Your task to perform on an android device: show emergency info Image 0: 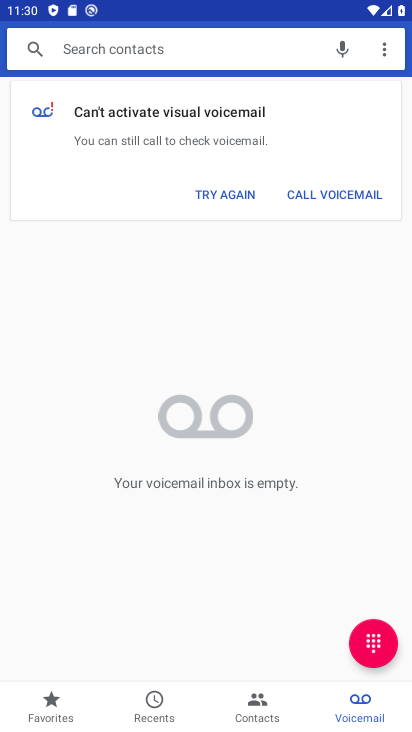
Step 0: press home button
Your task to perform on an android device: show emergency info Image 1: 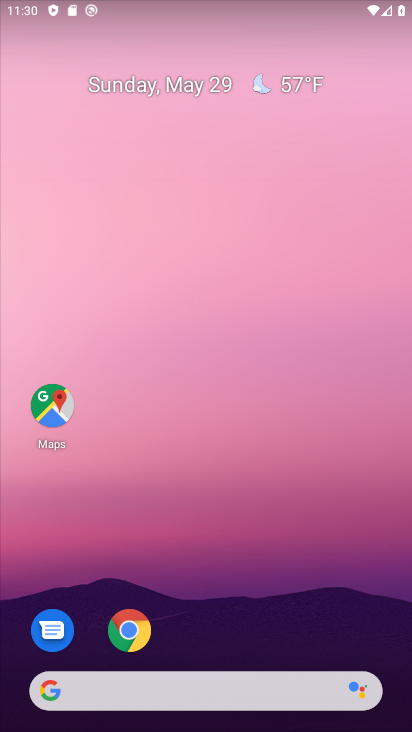
Step 1: drag from (219, 703) to (228, 136)
Your task to perform on an android device: show emergency info Image 2: 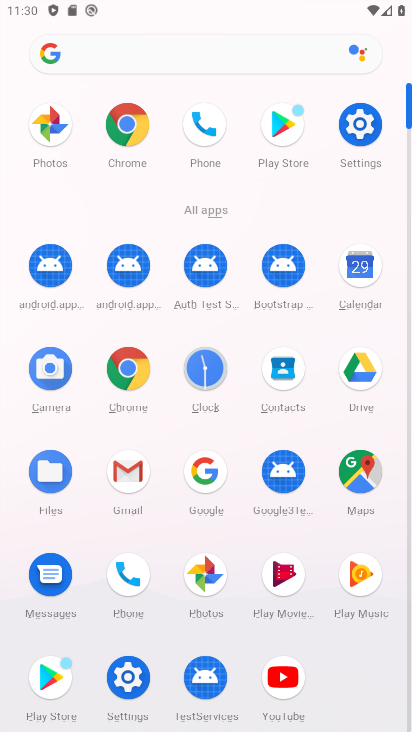
Step 2: click (364, 129)
Your task to perform on an android device: show emergency info Image 3: 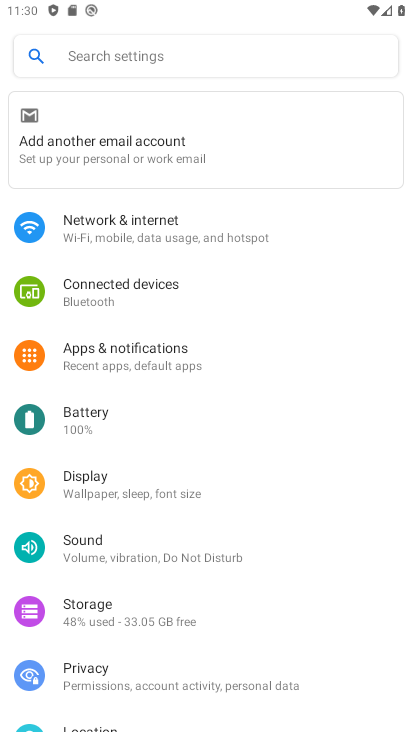
Step 3: click (118, 63)
Your task to perform on an android device: show emergency info Image 4: 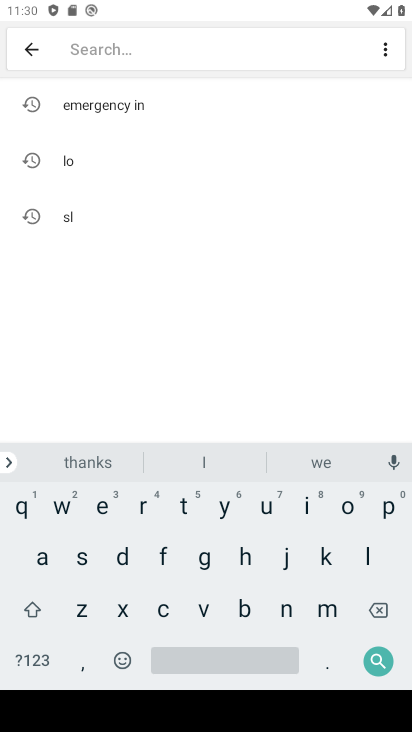
Step 4: click (148, 103)
Your task to perform on an android device: show emergency info Image 5: 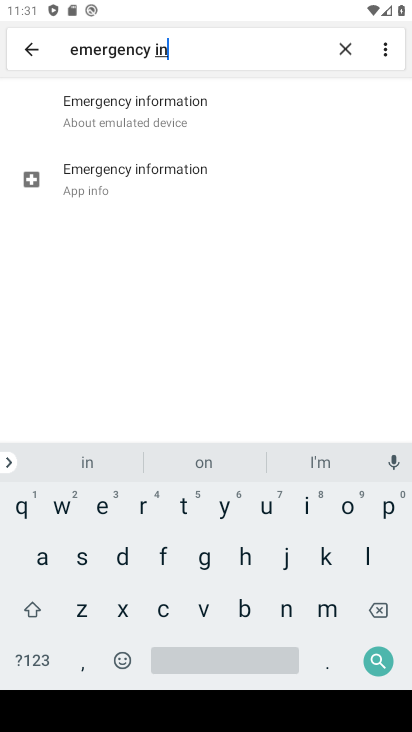
Step 5: click (156, 119)
Your task to perform on an android device: show emergency info Image 6: 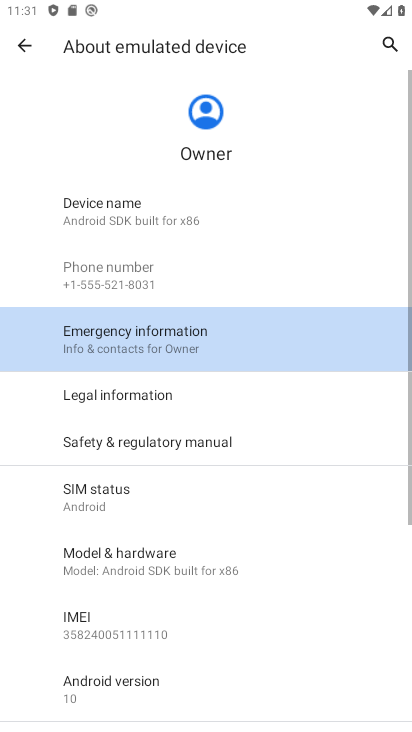
Step 6: click (146, 325)
Your task to perform on an android device: show emergency info Image 7: 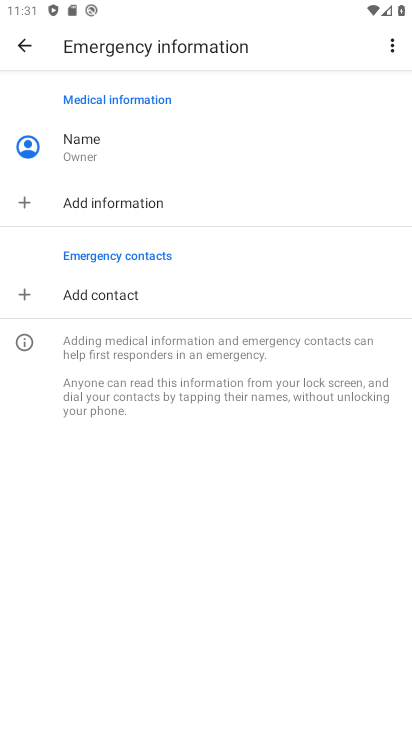
Step 7: task complete